Your task to perform on an android device: Search for razer nari on bestbuy, select the first entry, and add it to the cart. Image 0: 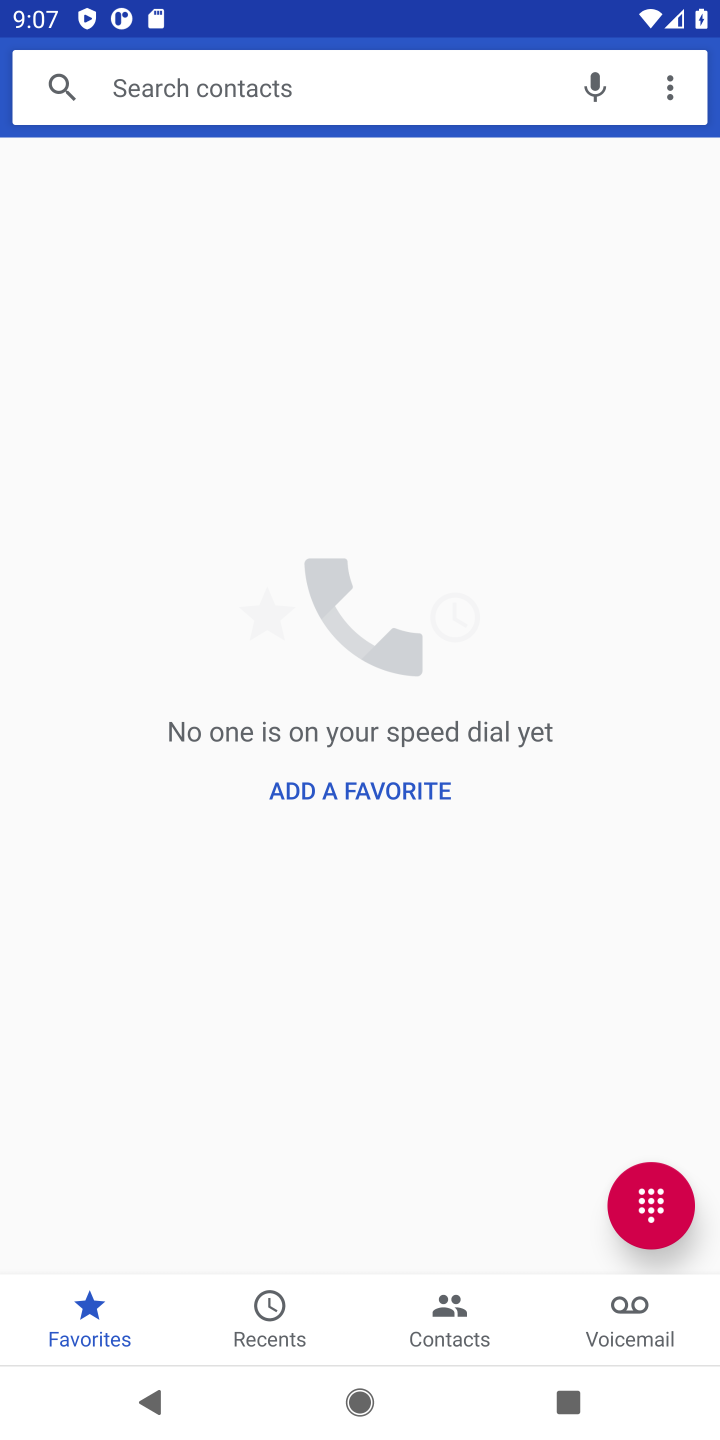
Step 0: press home button
Your task to perform on an android device: Search for razer nari on bestbuy, select the first entry, and add it to the cart. Image 1: 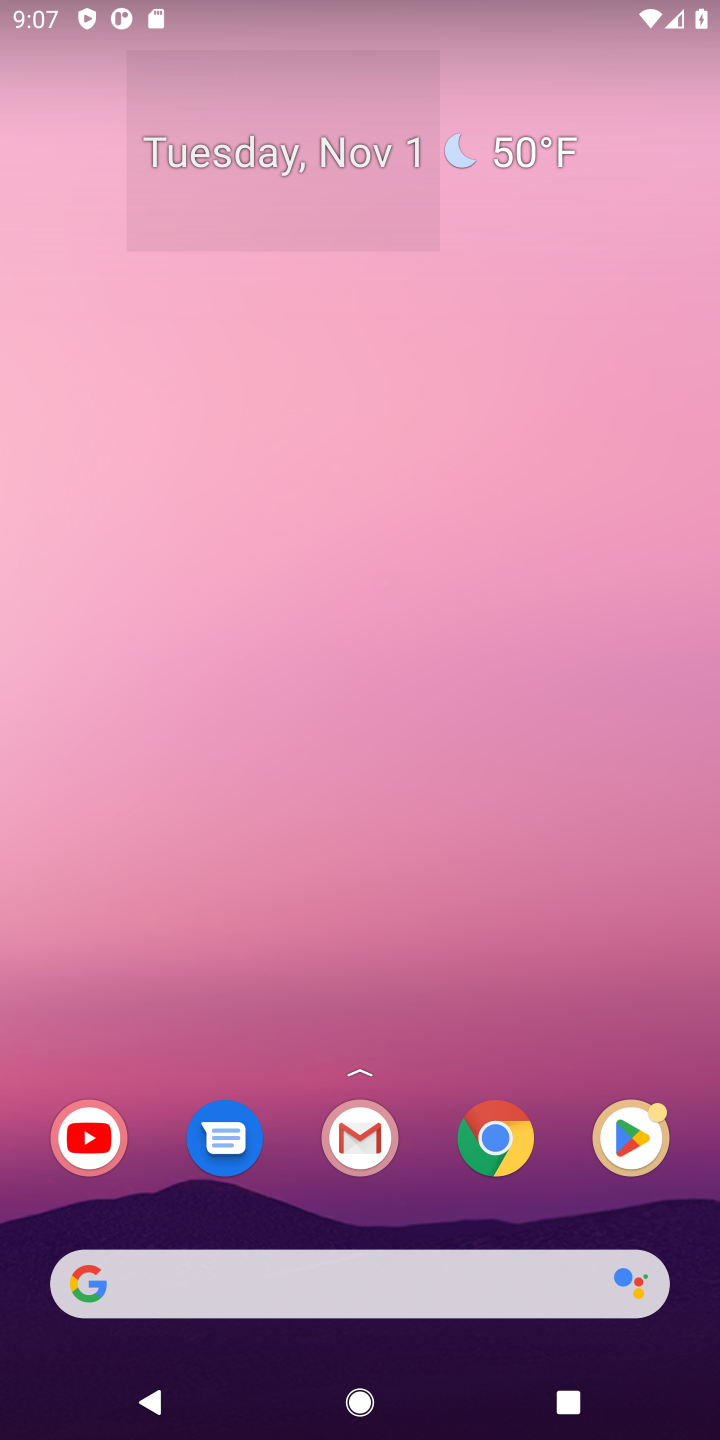
Step 1: click (494, 1137)
Your task to perform on an android device: Search for razer nari on bestbuy, select the first entry, and add it to the cart. Image 2: 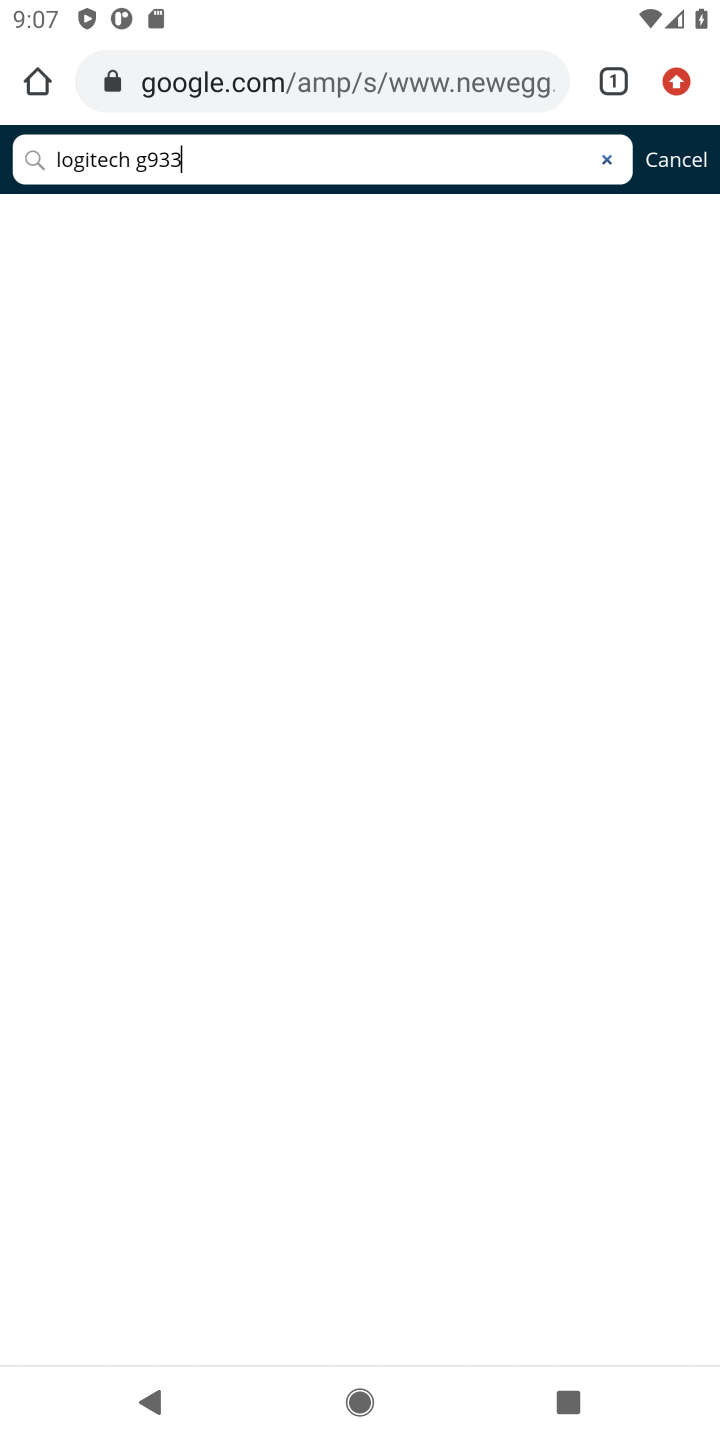
Step 2: click (345, 84)
Your task to perform on an android device: Search for razer nari on bestbuy, select the first entry, and add it to the cart. Image 3: 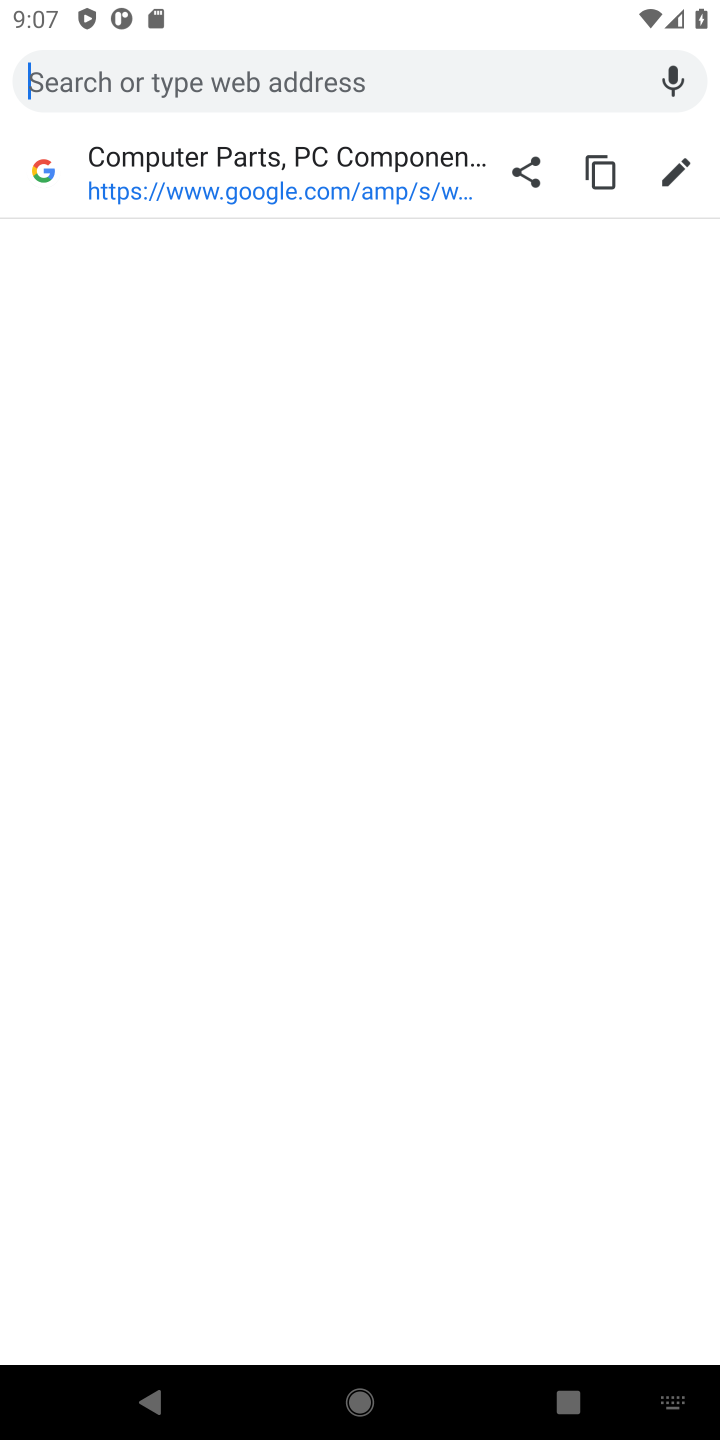
Step 3: type "bestbuy"
Your task to perform on an android device: Search for razer nari on bestbuy, select the first entry, and add it to the cart. Image 4: 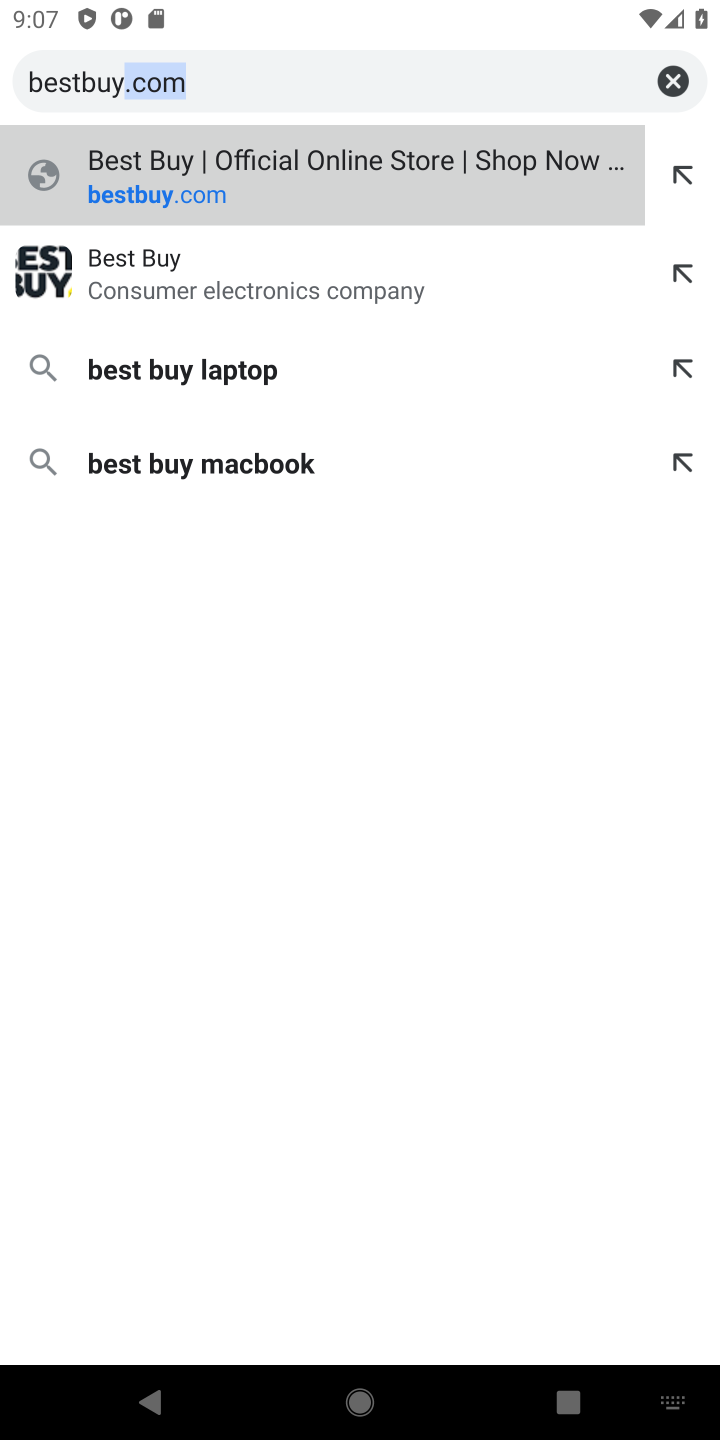
Step 4: click (145, 268)
Your task to perform on an android device: Search for razer nari on bestbuy, select the first entry, and add it to the cart. Image 5: 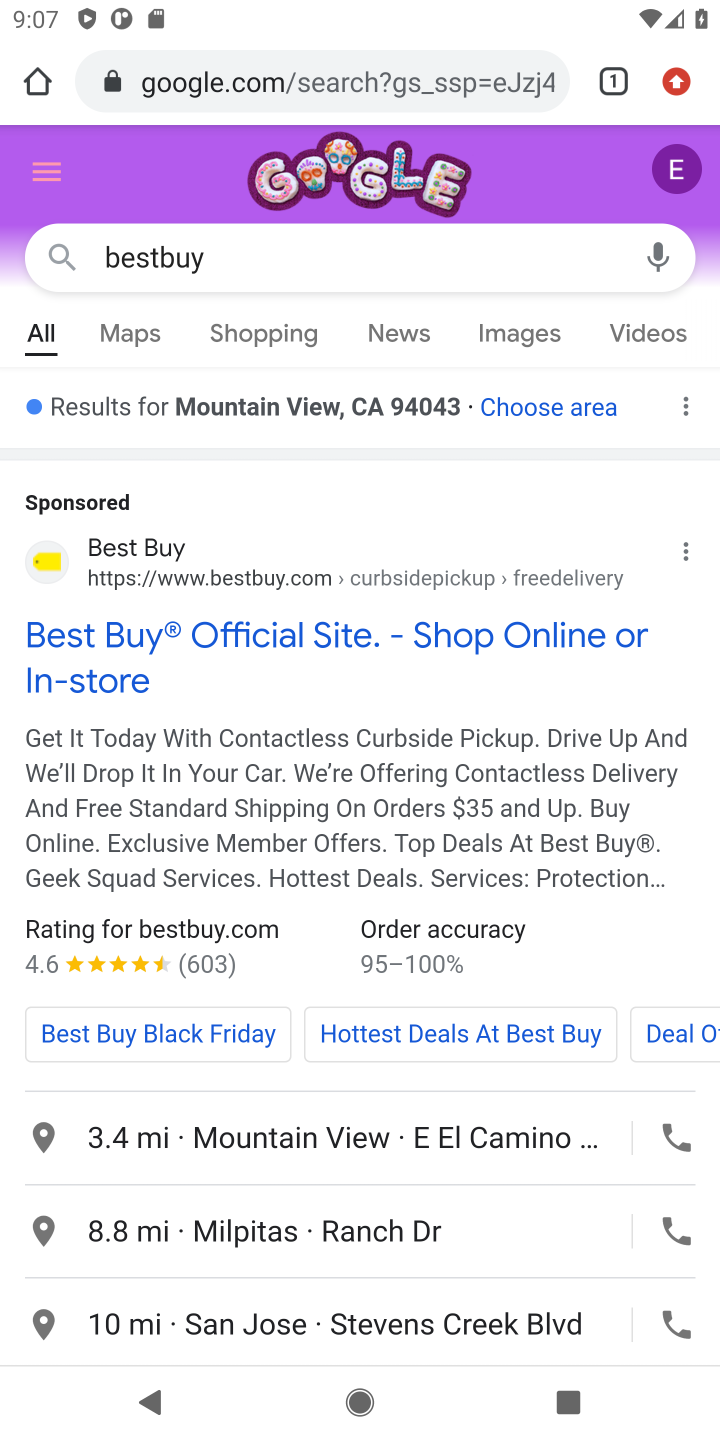
Step 5: drag from (294, 933) to (253, 316)
Your task to perform on an android device: Search for razer nari on bestbuy, select the first entry, and add it to the cart. Image 6: 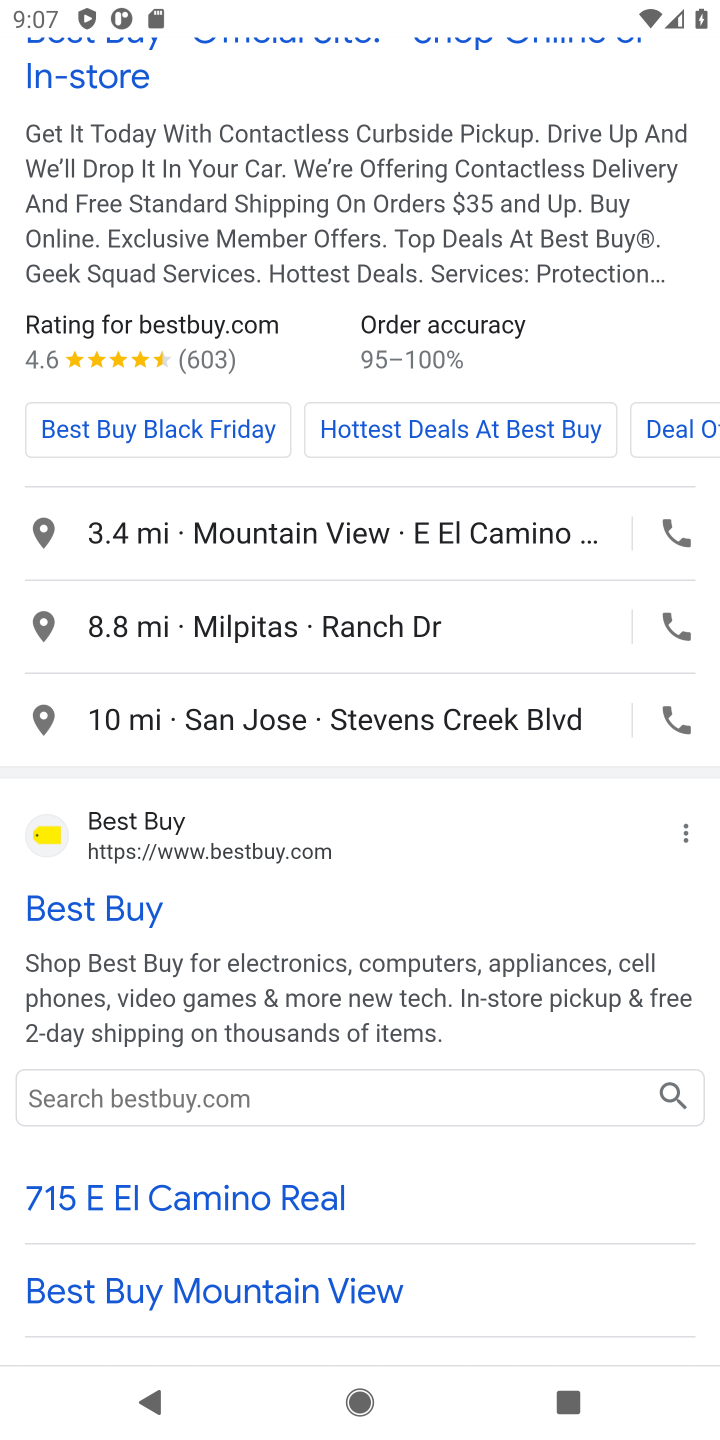
Step 6: click (135, 913)
Your task to perform on an android device: Search for razer nari on bestbuy, select the first entry, and add it to the cart. Image 7: 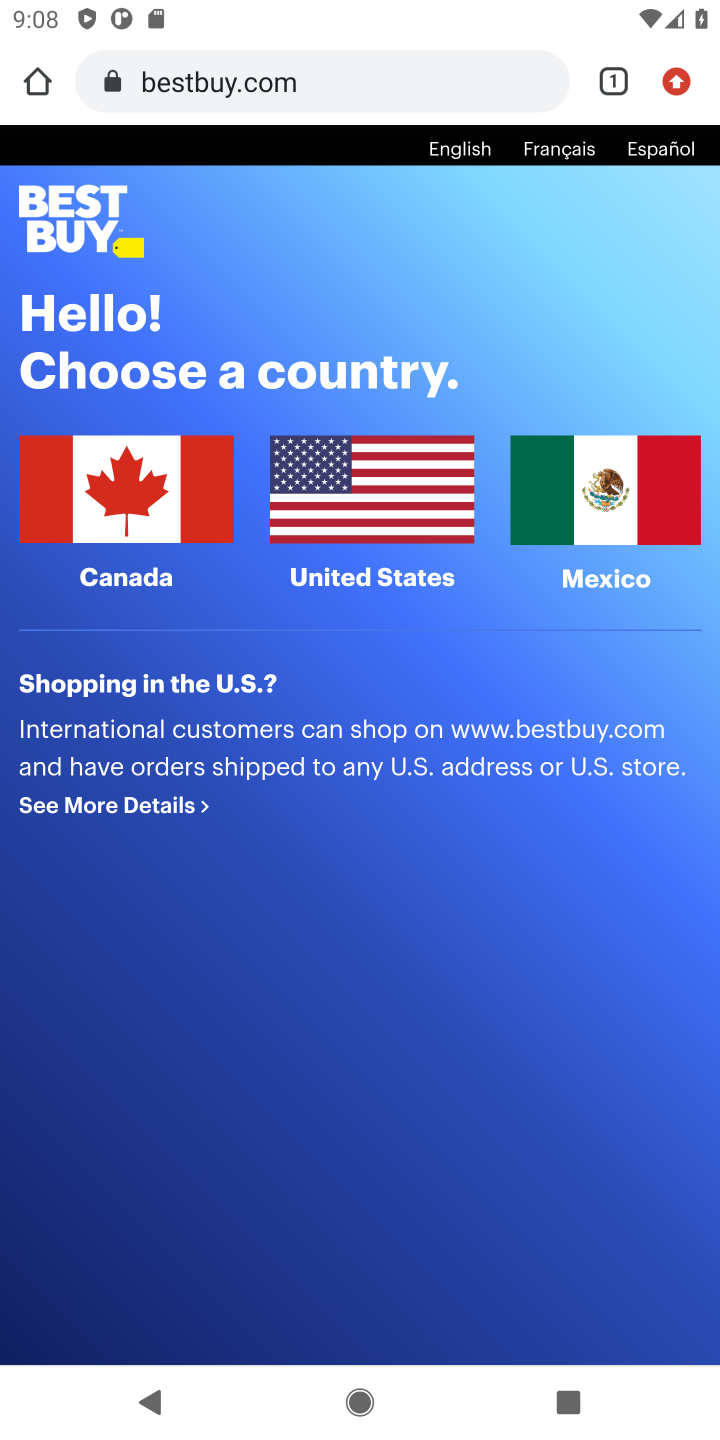
Step 7: click (375, 505)
Your task to perform on an android device: Search for razer nari on bestbuy, select the first entry, and add it to the cart. Image 8: 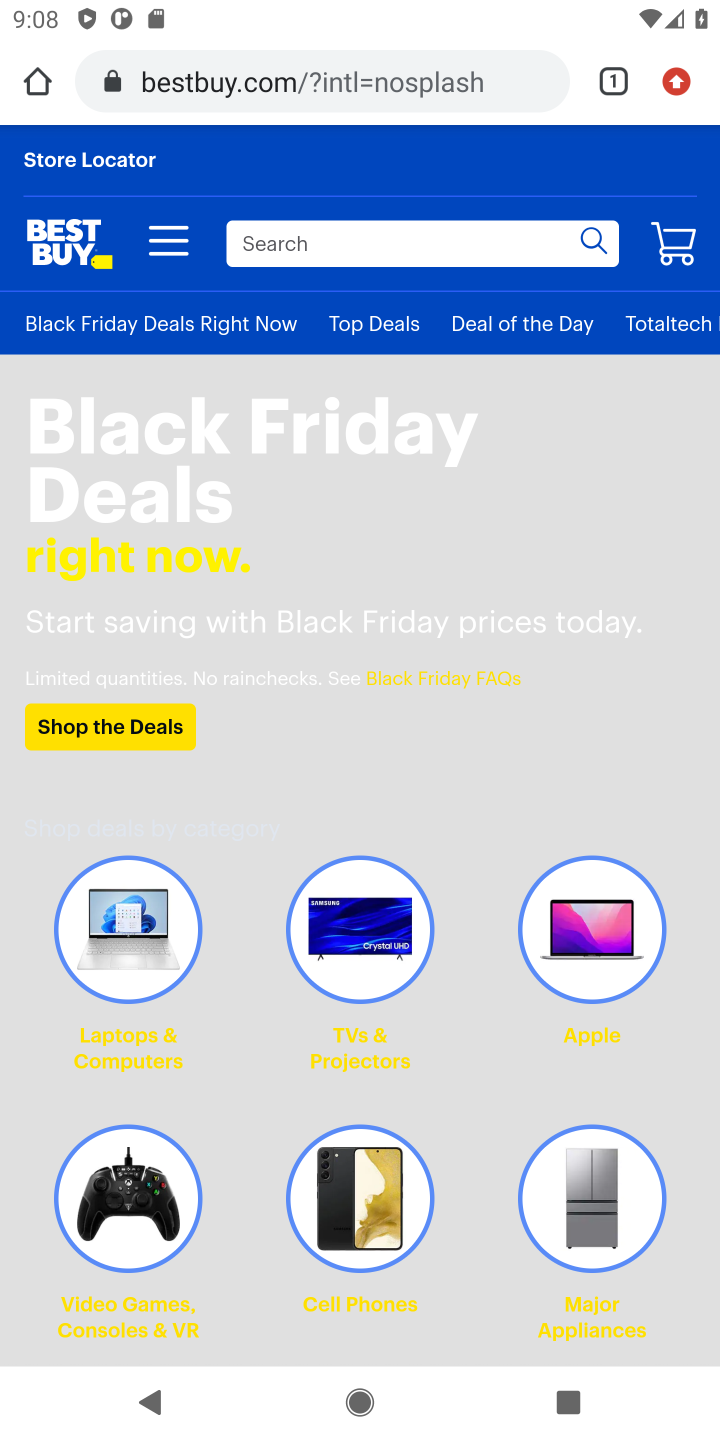
Step 8: click (344, 238)
Your task to perform on an android device: Search for razer nari on bestbuy, select the first entry, and add it to the cart. Image 9: 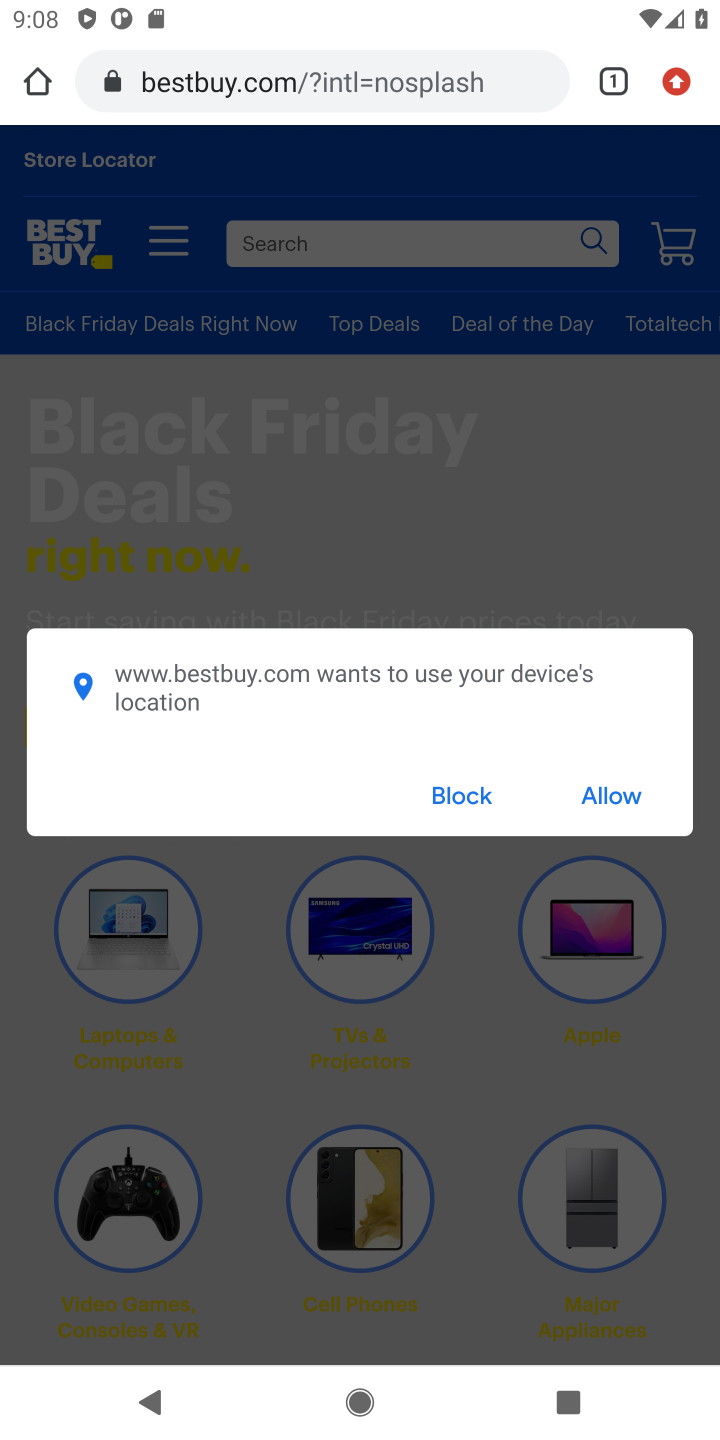
Step 9: click (606, 790)
Your task to perform on an android device: Search for razer nari on bestbuy, select the first entry, and add it to the cart. Image 10: 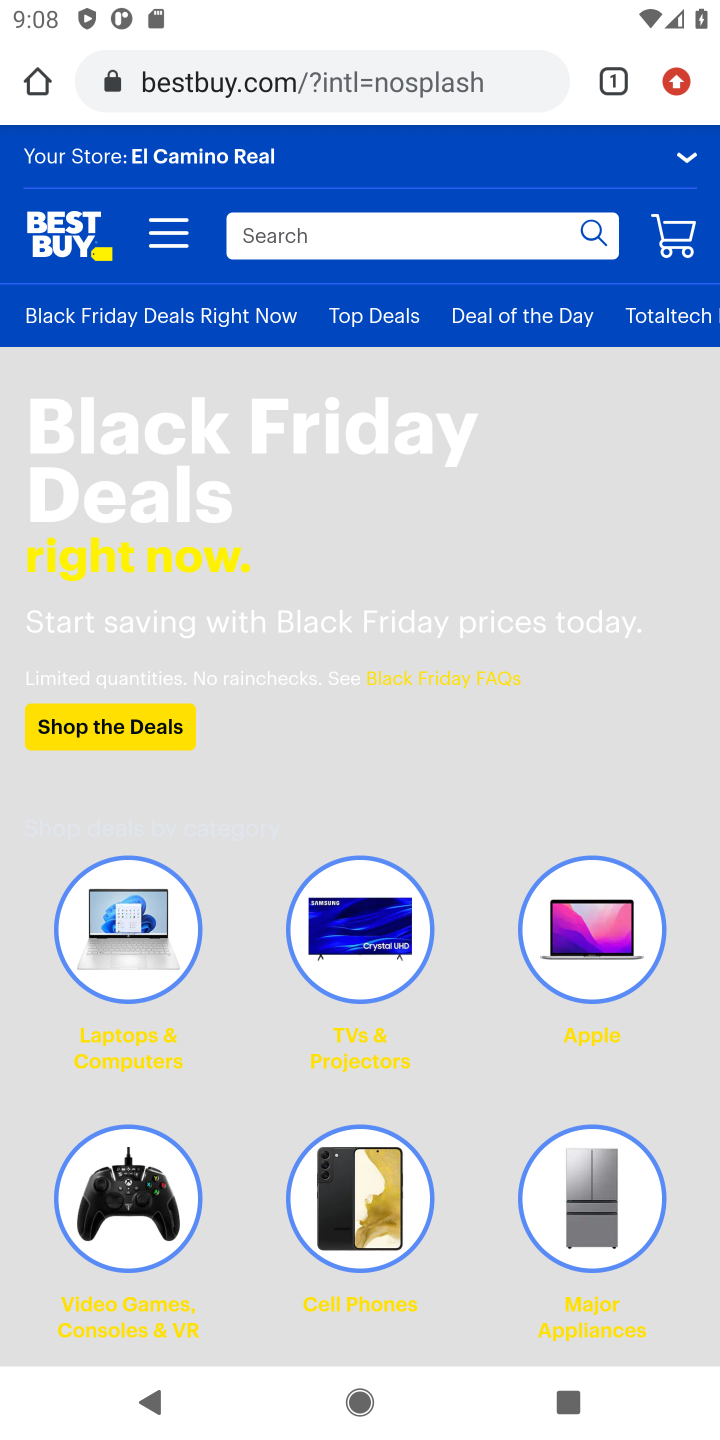
Step 10: click (331, 222)
Your task to perform on an android device: Search for razer nari on bestbuy, select the first entry, and add it to the cart. Image 11: 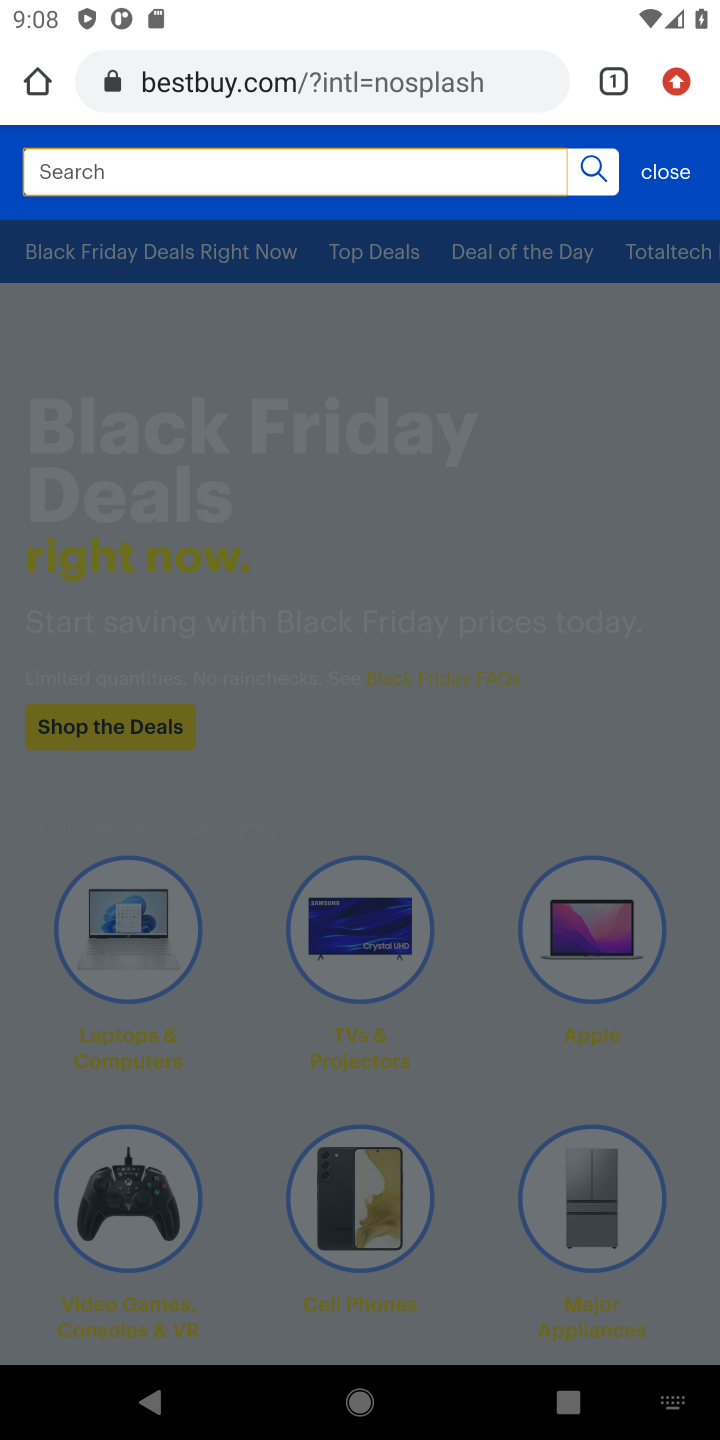
Step 11: type "razer nari"
Your task to perform on an android device: Search for razer nari on bestbuy, select the first entry, and add it to the cart. Image 12: 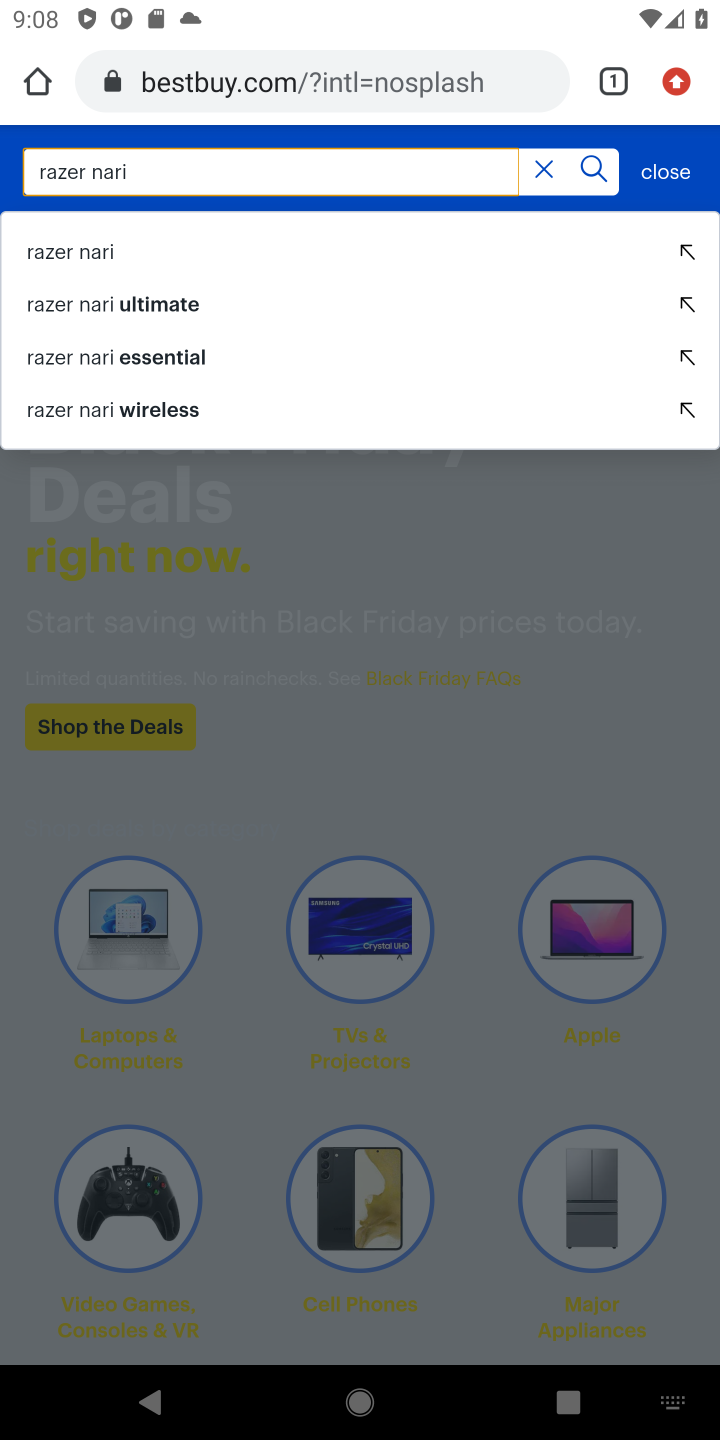
Step 12: click (85, 249)
Your task to perform on an android device: Search for razer nari on bestbuy, select the first entry, and add it to the cart. Image 13: 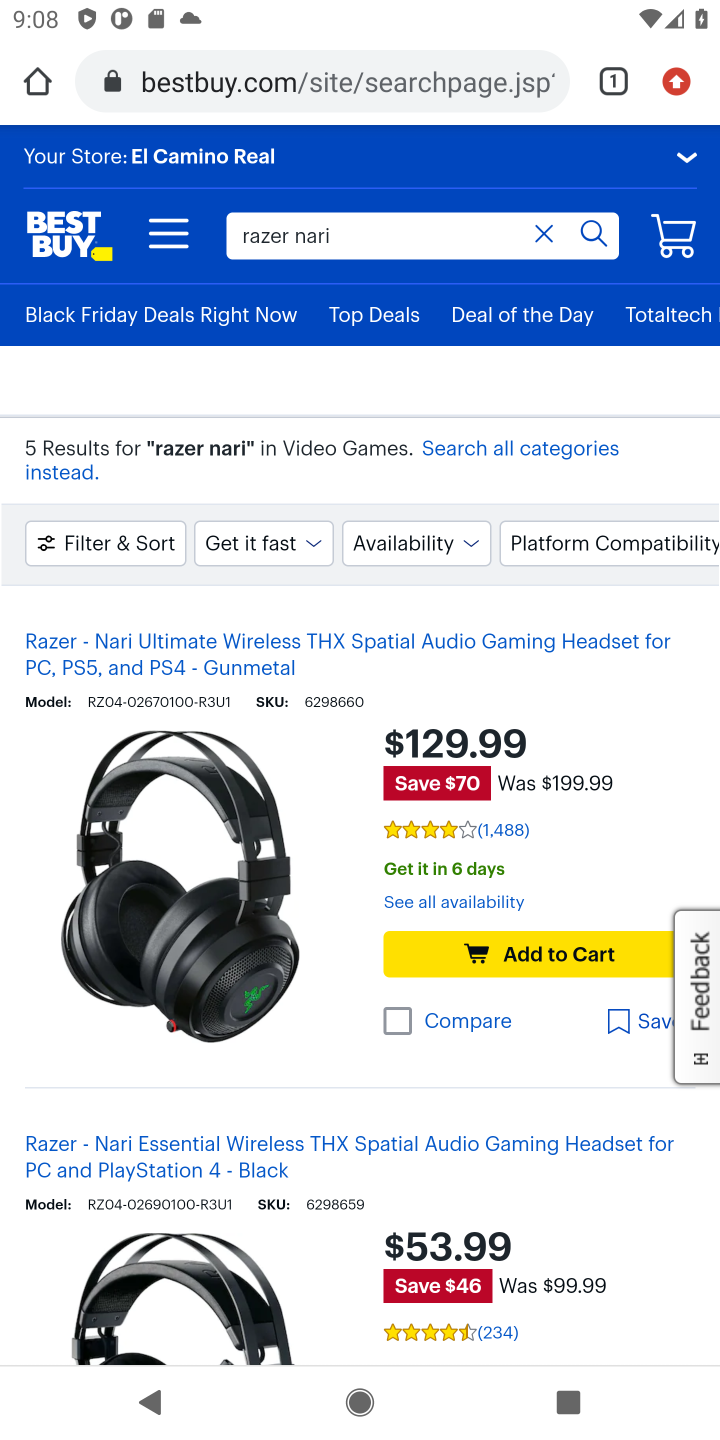
Step 13: click (535, 951)
Your task to perform on an android device: Search for razer nari on bestbuy, select the first entry, and add it to the cart. Image 14: 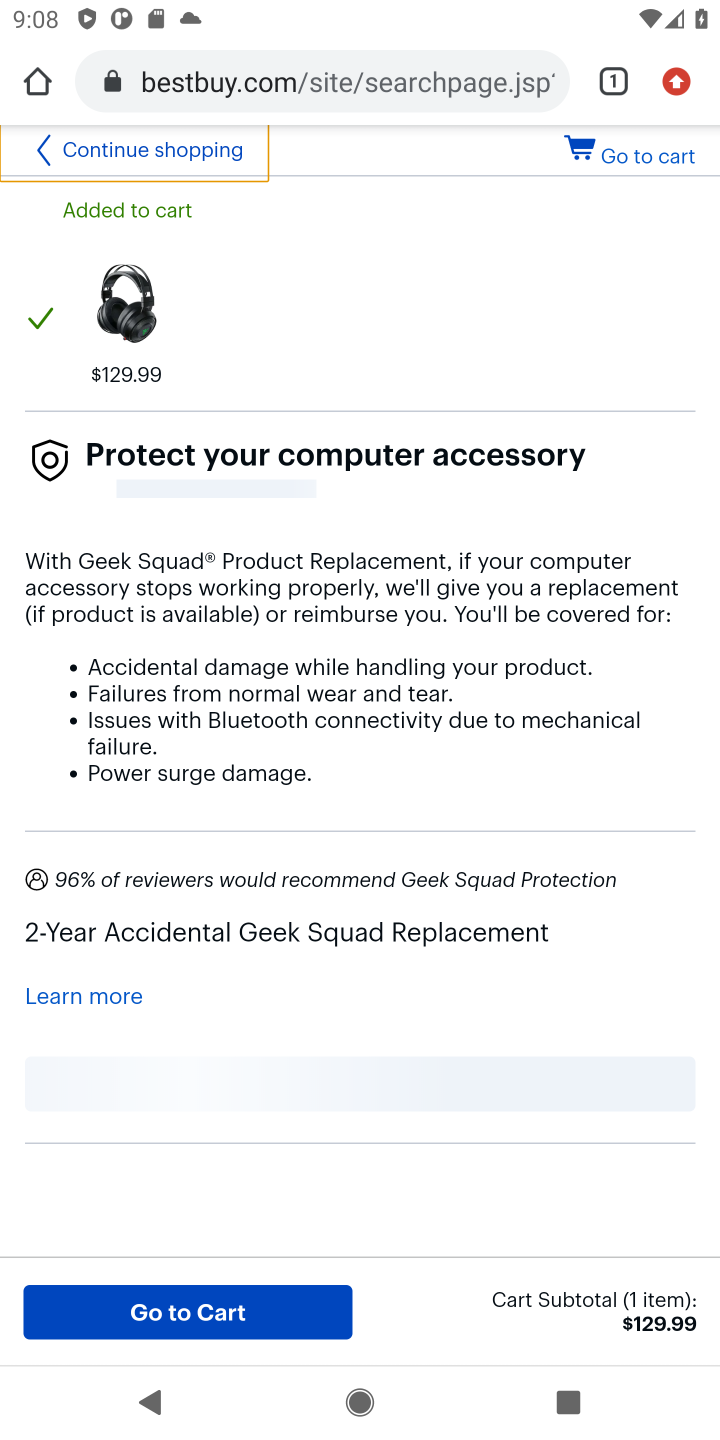
Step 14: click (189, 1318)
Your task to perform on an android device: Search for razer nari on bestbuy, select the first entry, and add it to the cart. Image 15: 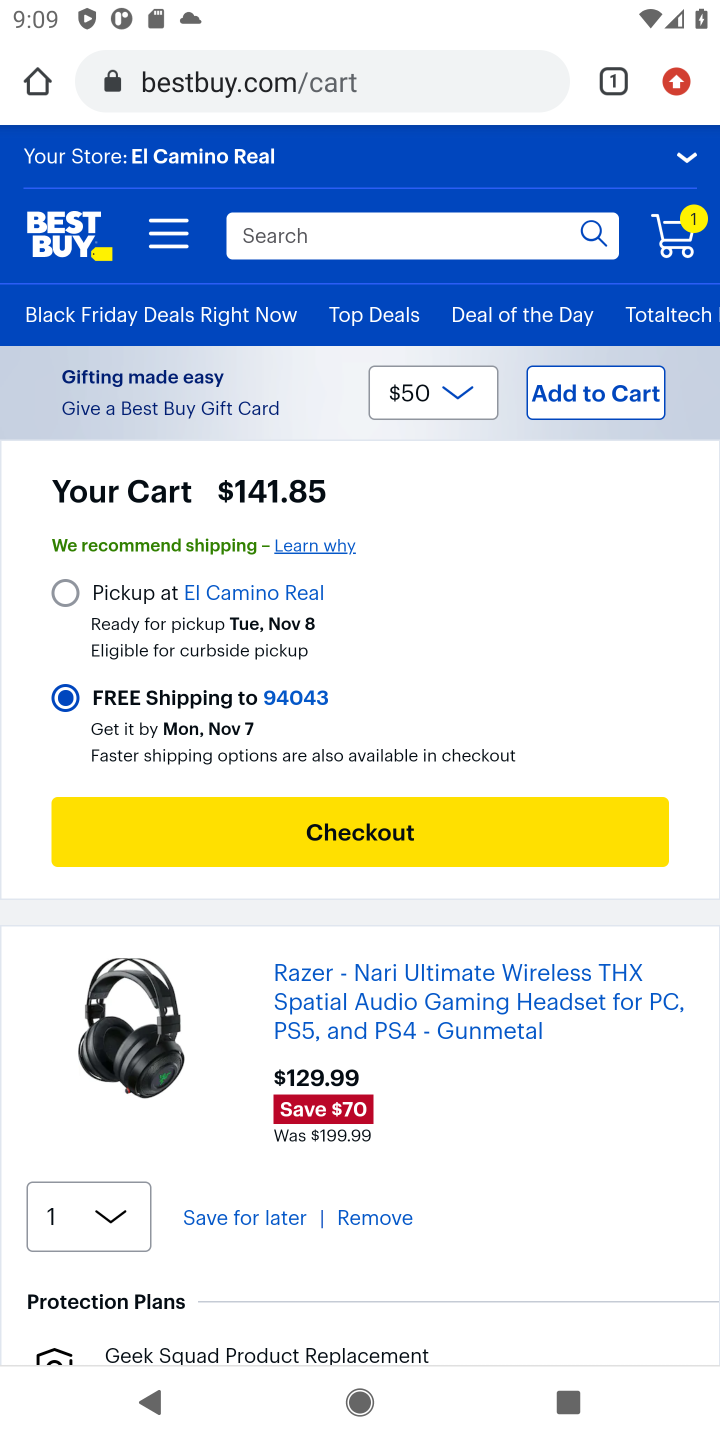
Step 15: task complete